Your task to perform on an android device: What's the US dollar exchange rate against the Australian Dollar? Image 0: 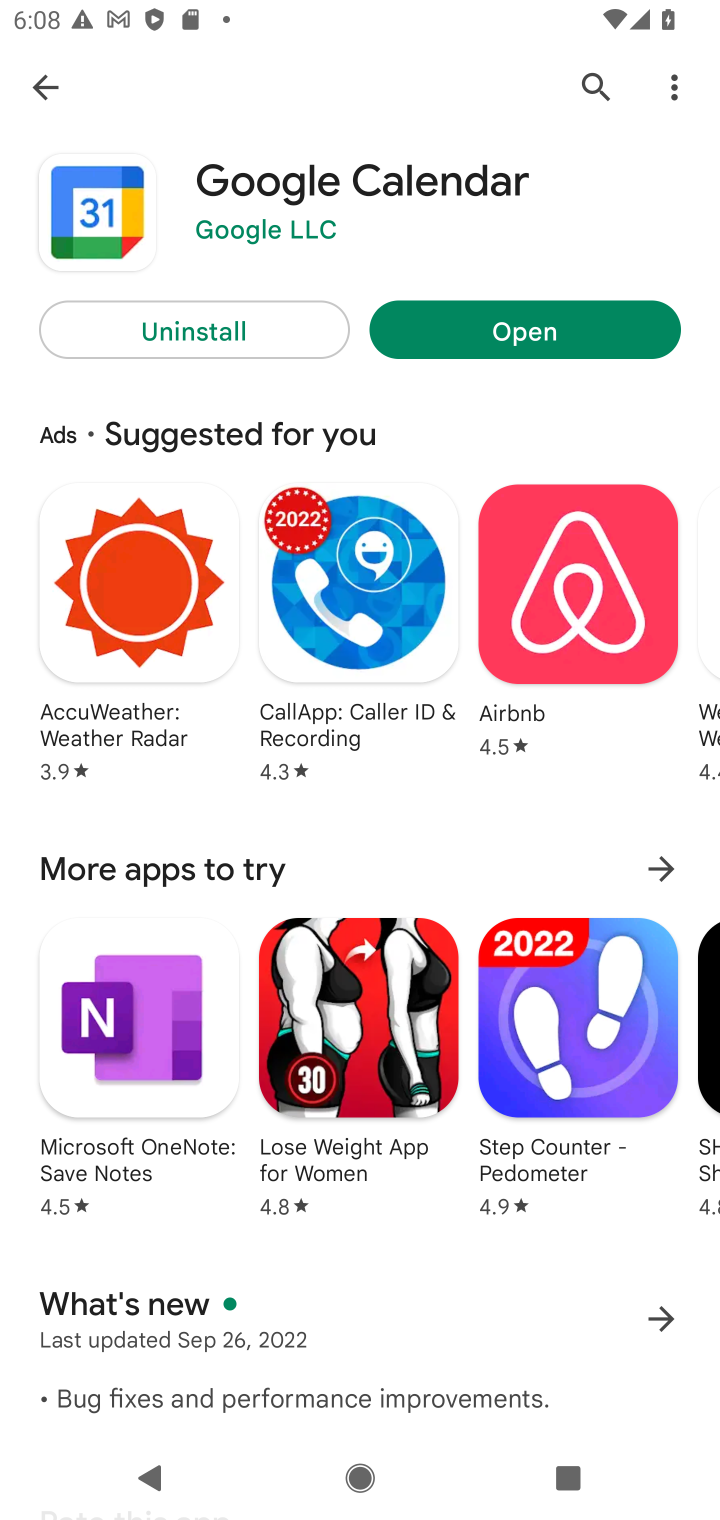
Step 0: press home button
Your task to perform on an android device: What's the US dollar exchange rate against the Australian Dollar? Image 1: 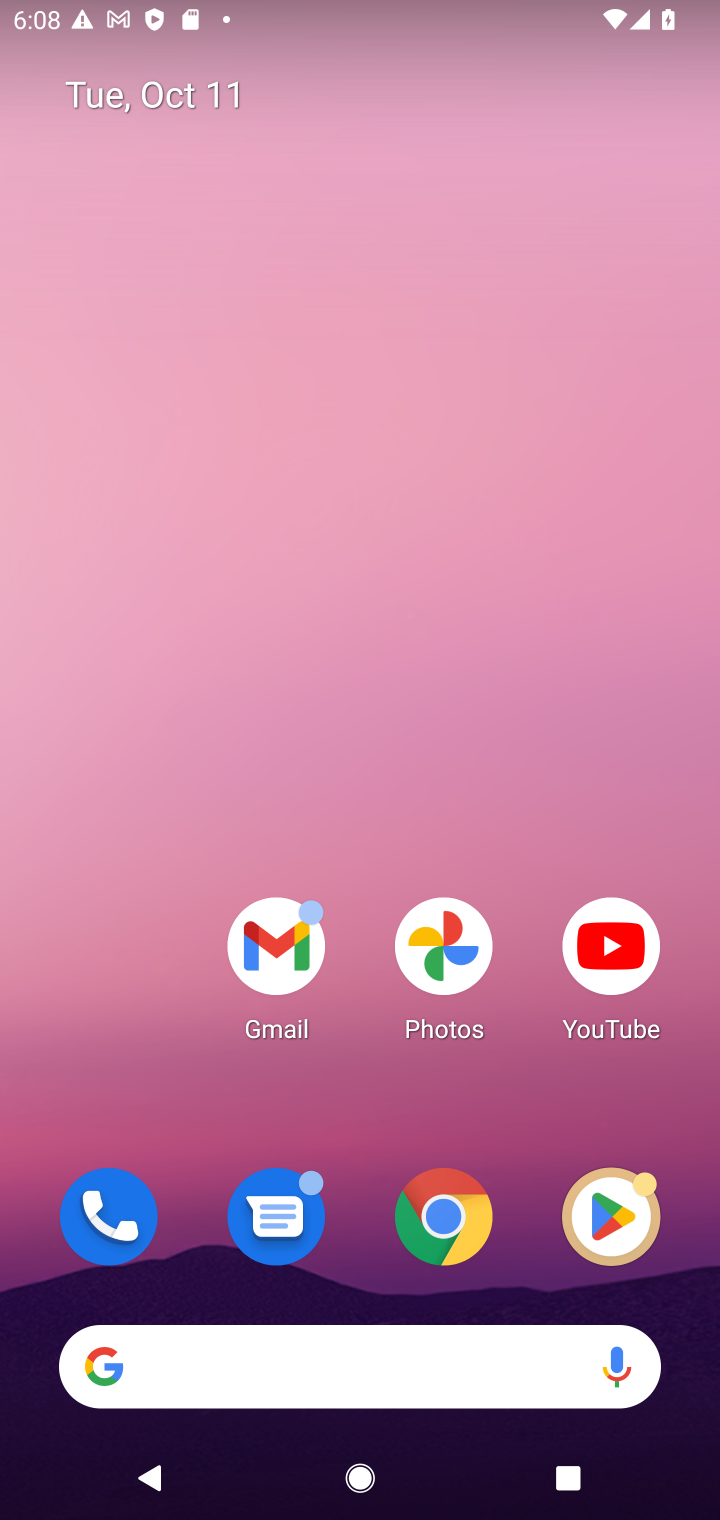
Step 1: click (444, 1218)
Your task to perform on an android device: What's the US dollar exchange rate against the Australian Dollar? Image 2: 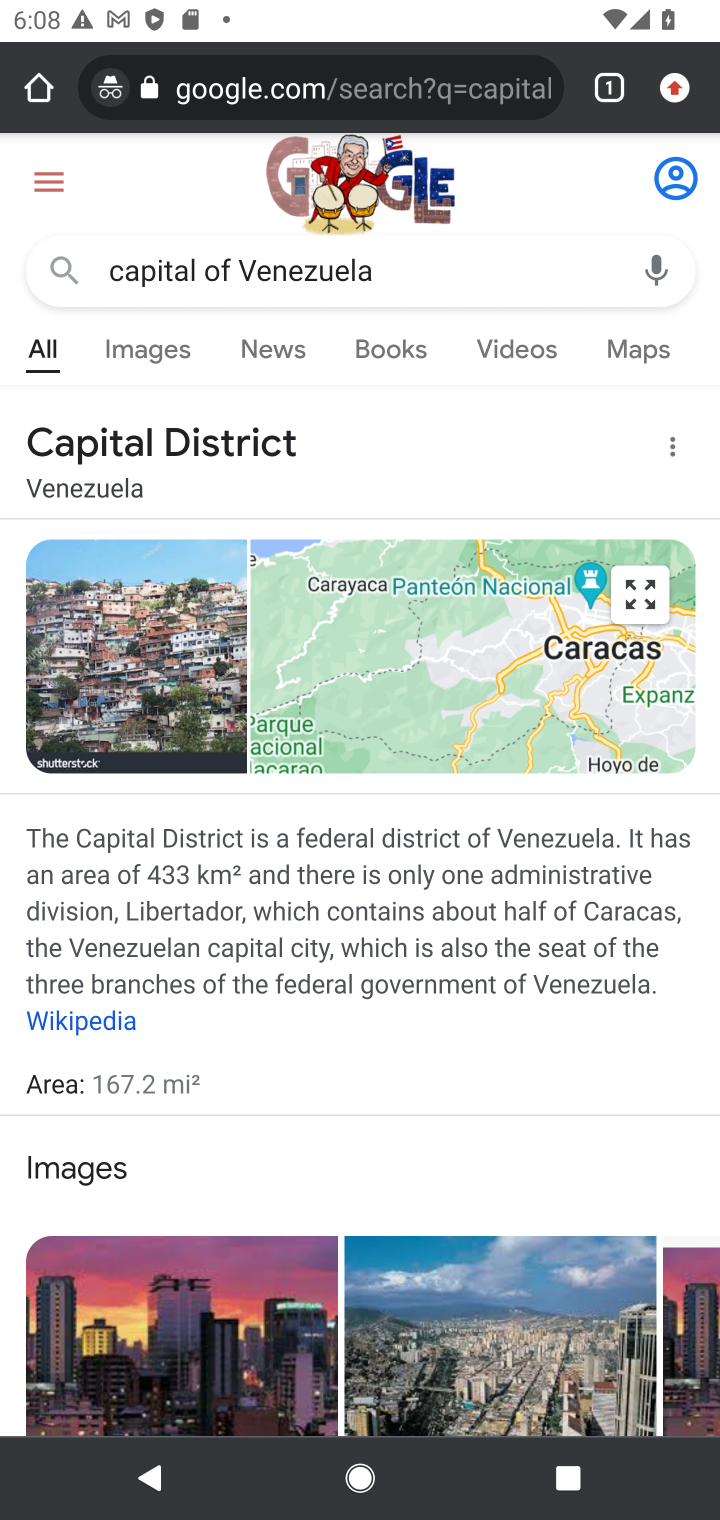
Step 2: click (197, 78)
Your task to perform on an android device: What's the US dollar exchange rate against the Australian Dollar? Image 3: 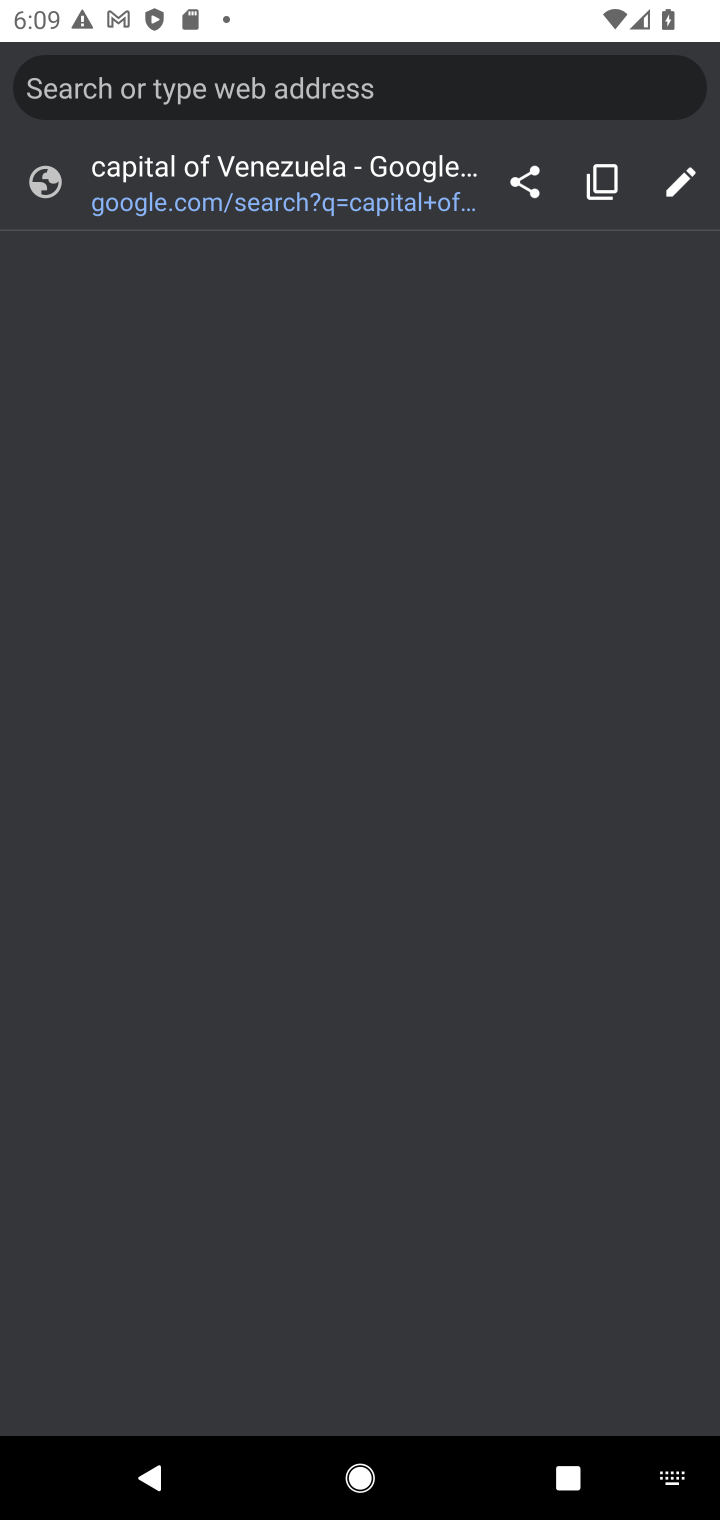
Step 3: type "What's the US dollar exchange rate against the Australian Dollar?"
Your task to perform on an android device: What's the US dollar exchange rate against the Australian Dollar? Image 4: 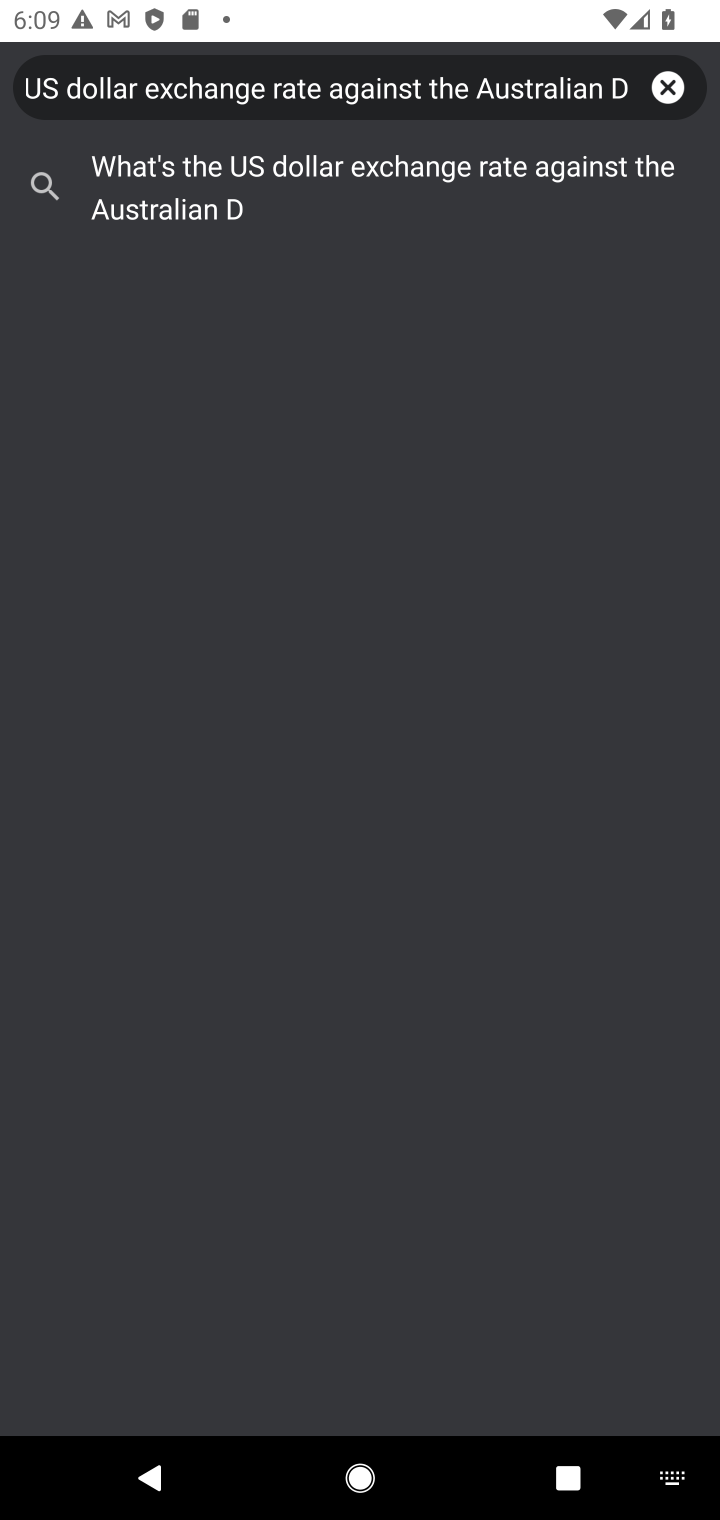
Step 4: click (319, 197)
Your task to perform on an android device: What's the US dollar exchange rate against the Australian Dollar? Image 5: 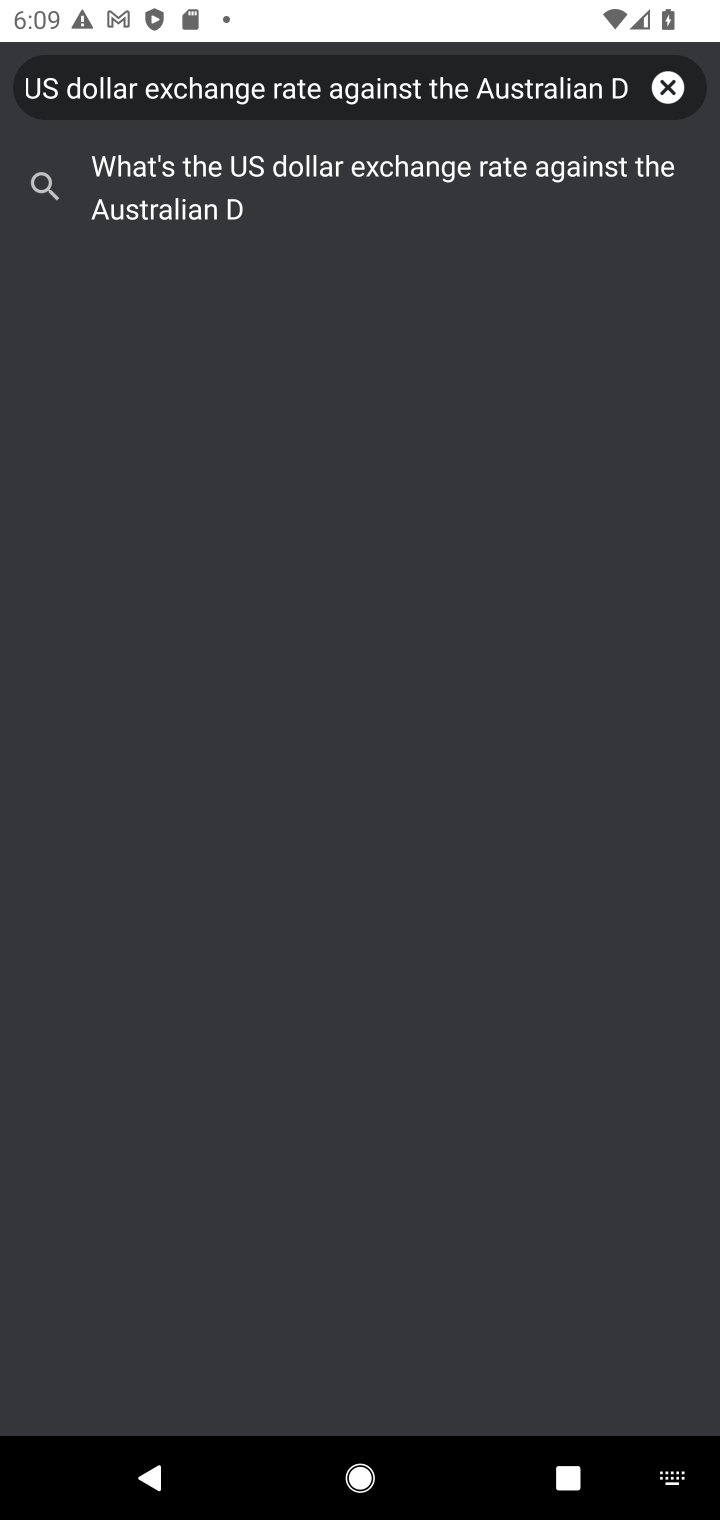
Step 5: click (397, 190)
Your task to perform on an android device: What's the US dollar exchange rate against the Australian Dollar? Image 6: 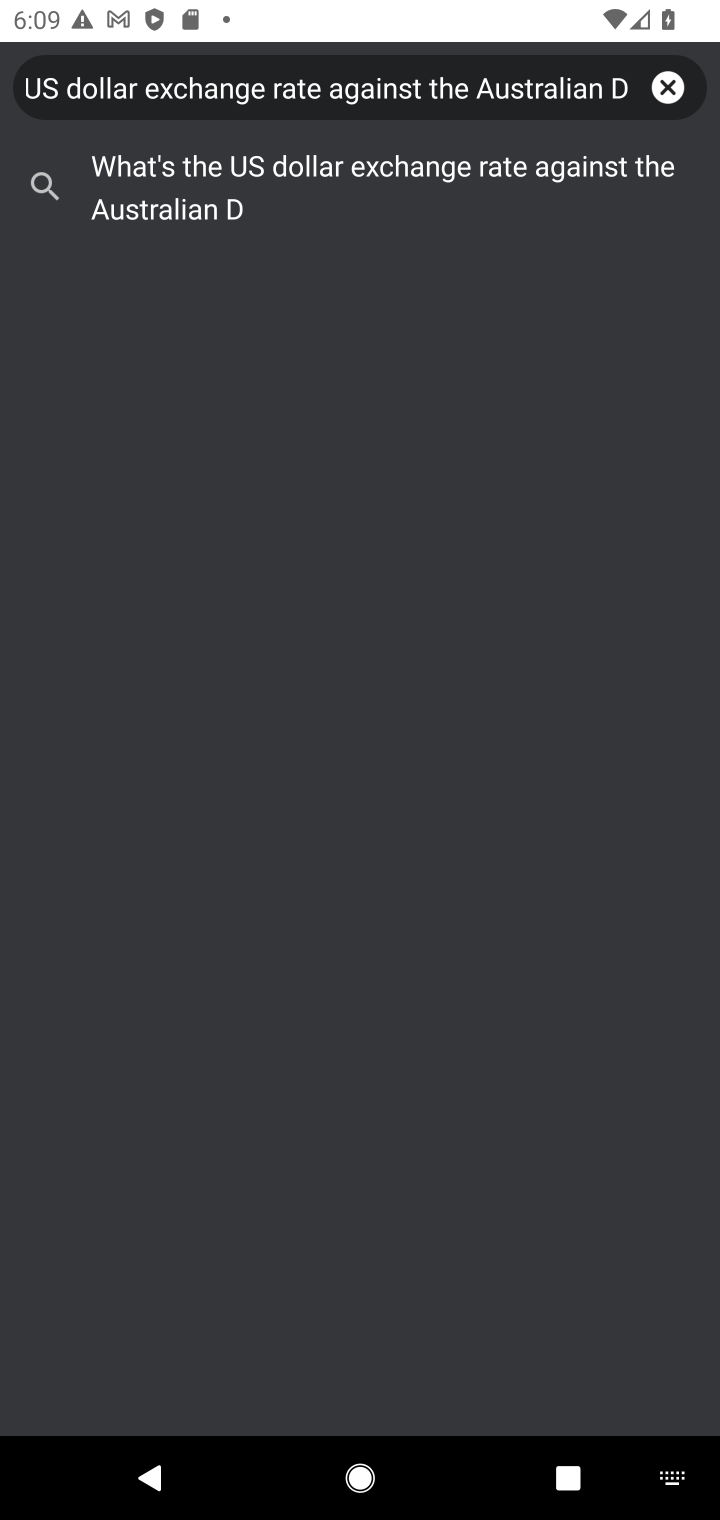
Step 6: click (161, 192)
Your task to perform on an android device: What's the US dollar exchange rate against the Australian Dollar? Image 7: 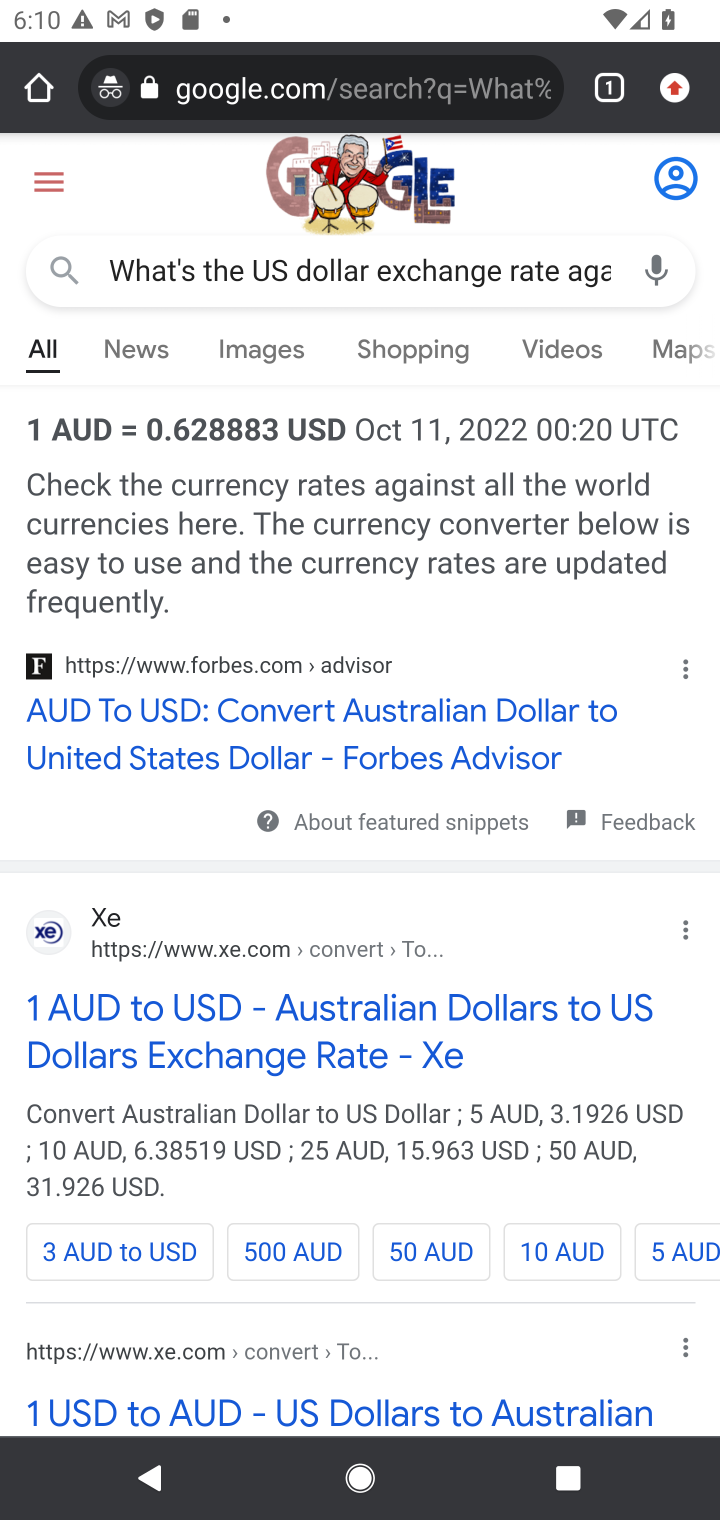
Step 7: task complete